Your task to perform on an android device: Open ESPN.com Image 0: 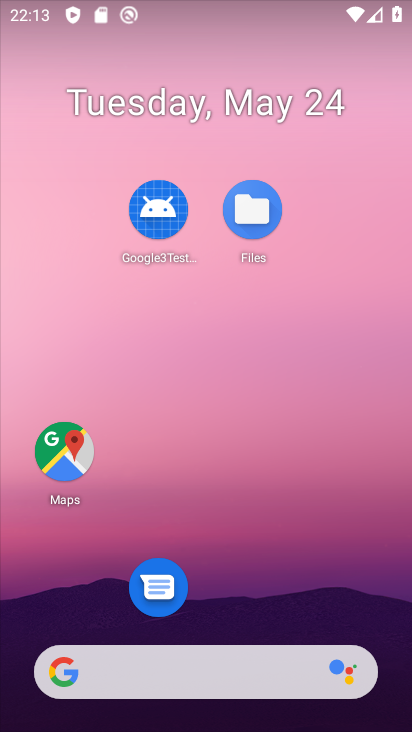
Step 0: drag from (224, 630) to (171, 130)
Your task to perform on an android device: Open ESPN.com Image 1: 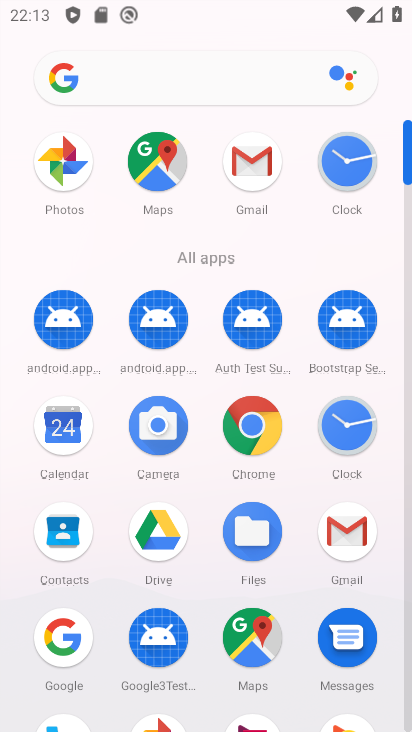
Step 1: click (254, 408)
Your task to perform on an android device: Open ESPN.com Image 2: 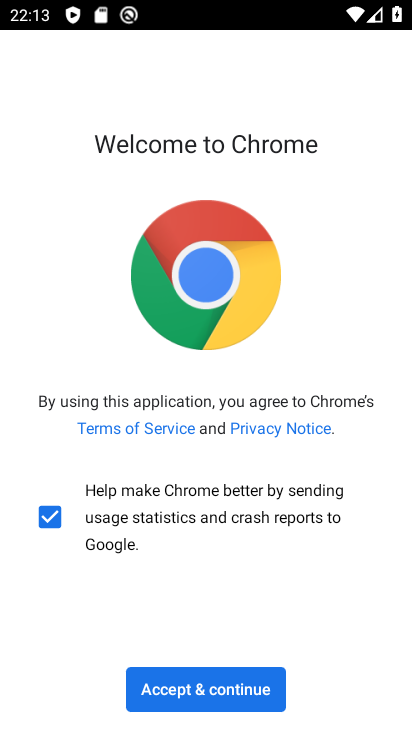
Step 2: click (208, 676)
Your task to perform on an android device: Open ESPN.com Image 3: 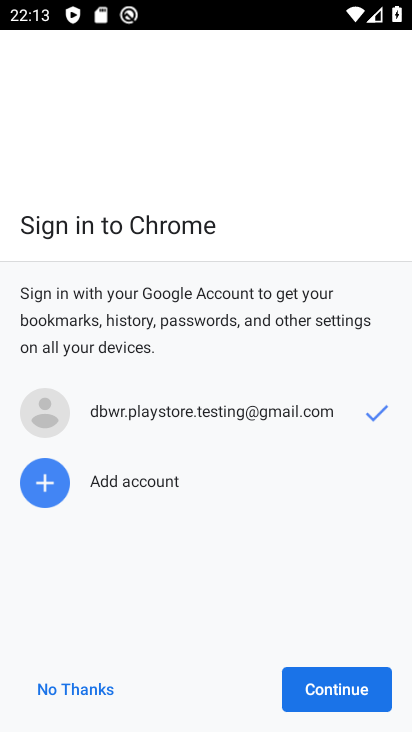
Step 3: click (323, 694)
Your task to perform on an android device: Open ESPN.com Image 4: 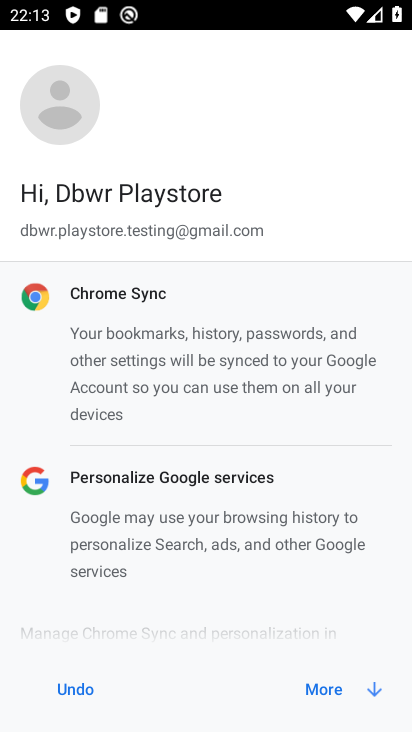
Step 4: click (340, 691)
Your task to perform on an android device: Open ESPN.com Image 5: 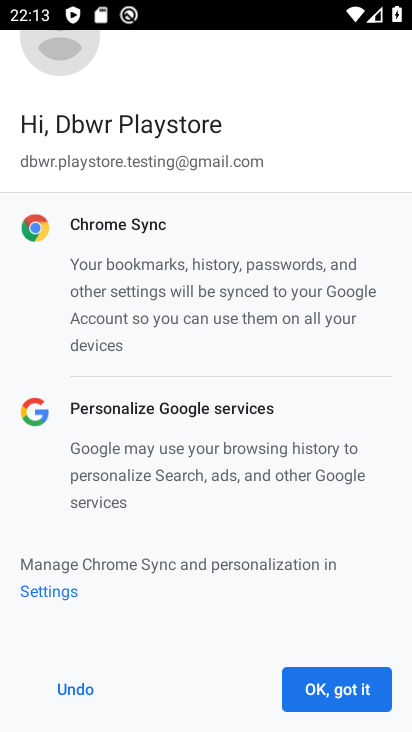
Step 5: click (340, 691)
Your task to perform on an android device: Open ESPN.com Image 6: 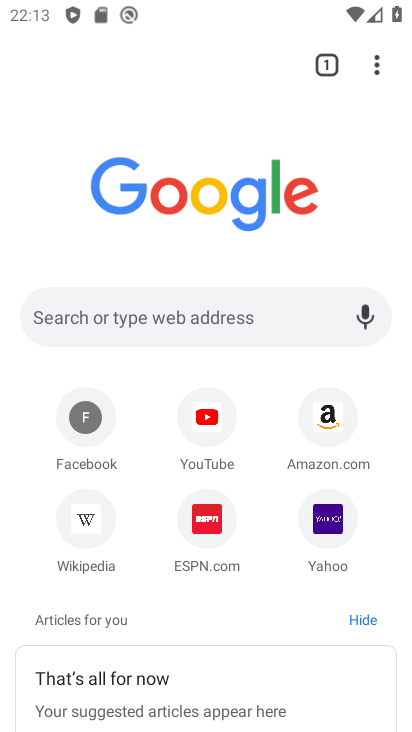
Step 6: click (216, 527)
Your task to perform on an android device: Open ESPN.com Image 7: 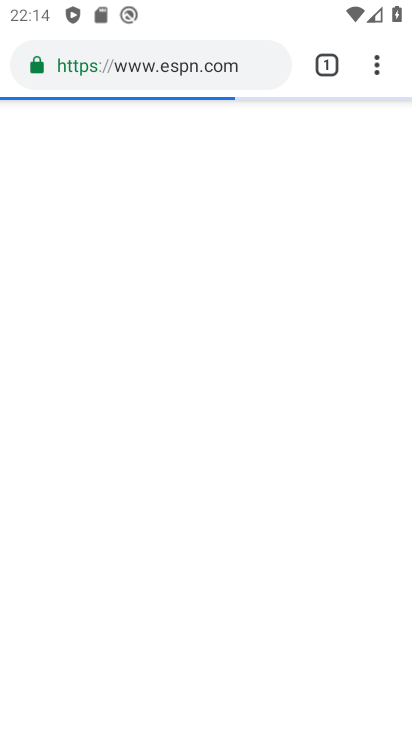
Step 7: task complete